Your task to perform on an android device: turn on sleep mode Image 0: 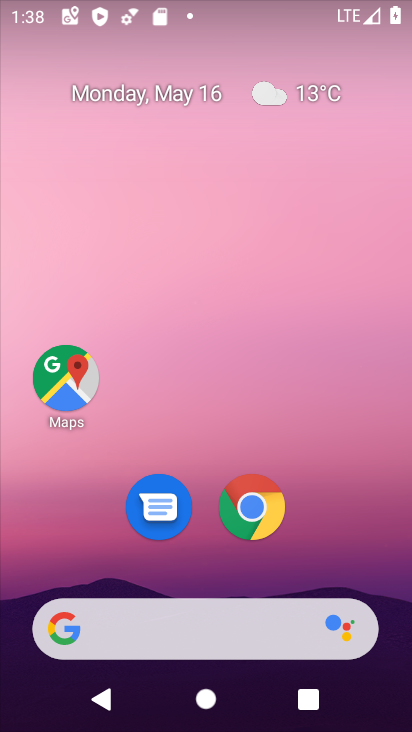
Step 0: drag from (337, 553) to (223, 98)
Your task to perform on an android device: turn on sleep mode Image 1: 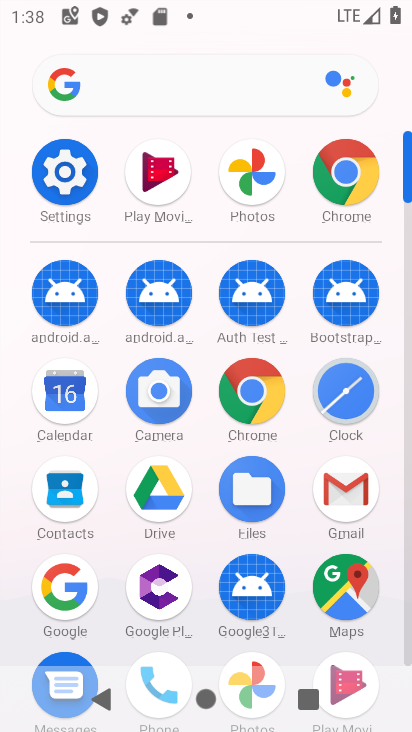
Step 1: click (69, 198)
Your task to perform on an android device: turn on sleep mode Image 2: 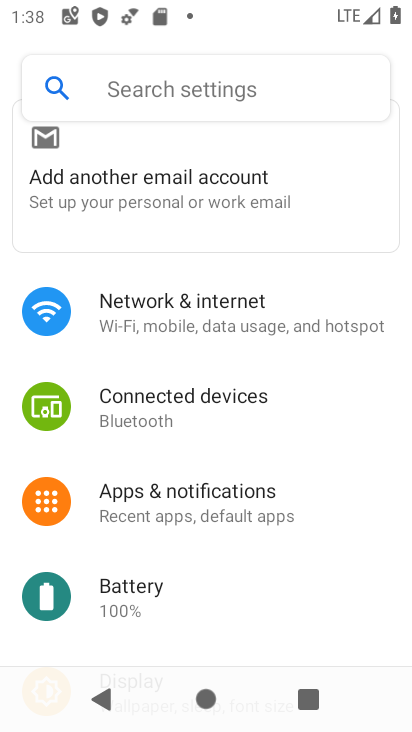
Step 2: drag from (236, 539) to (212, 104)
Your task to perform on an android device: turn on sleep mode Image 3: 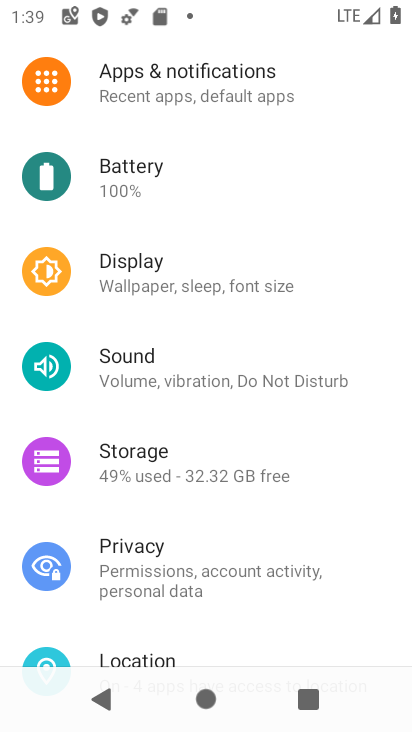
Step 3: click (205, 266)
Your task to perform on an android device: turn on sleep mode Image 4: 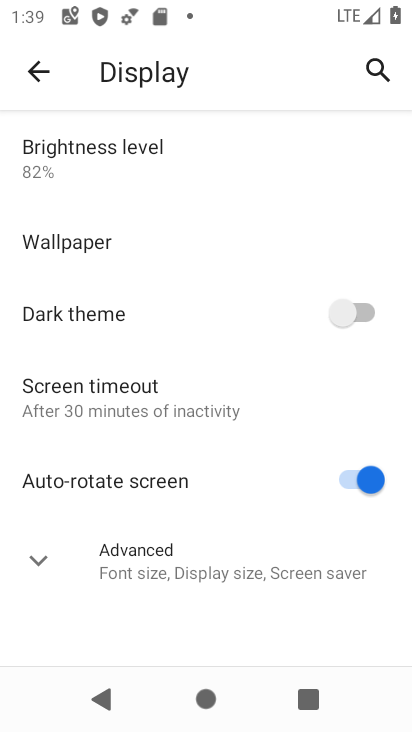
Step 4: task complete